Your task to perform on an android device: check google app version Image 0: 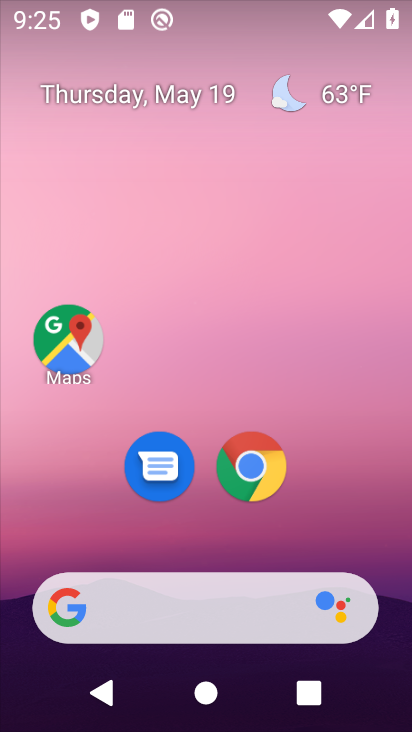
Step 0: drag from (394, 610) to (267, 9)
Your task to perform on an android device: check google app version Image 1: 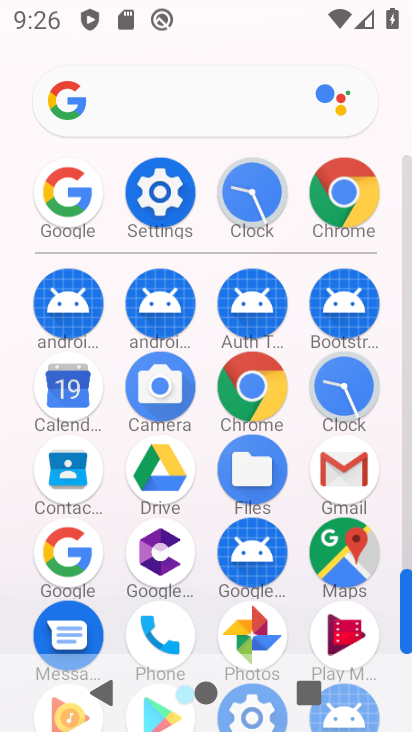
Step 1: click (61, 556)
Your task to perform on an android device: check google app version Image 2: 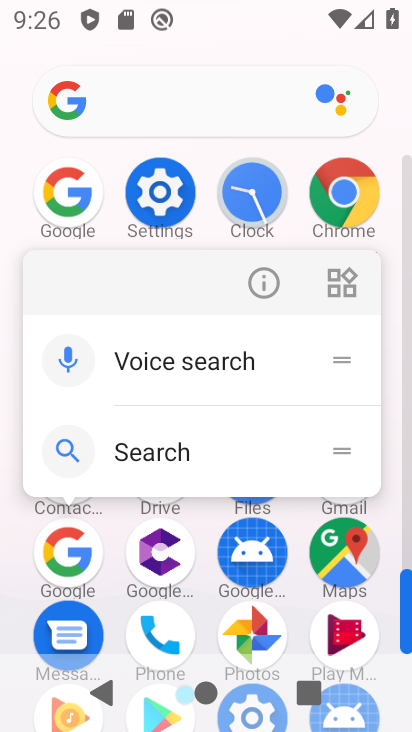
Step 2: click (251, 289)
Your task to perform on an android device: check google app version Image 3: 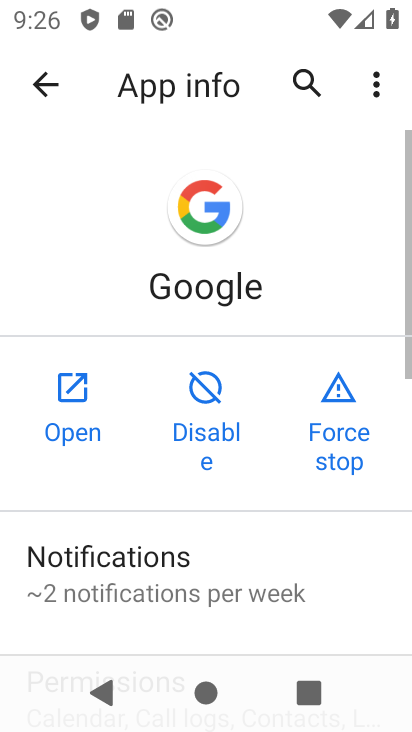
Step 3: drag from (192, 619) to (153, 62)
Your task to perform on an android device: check google app version Image 4: 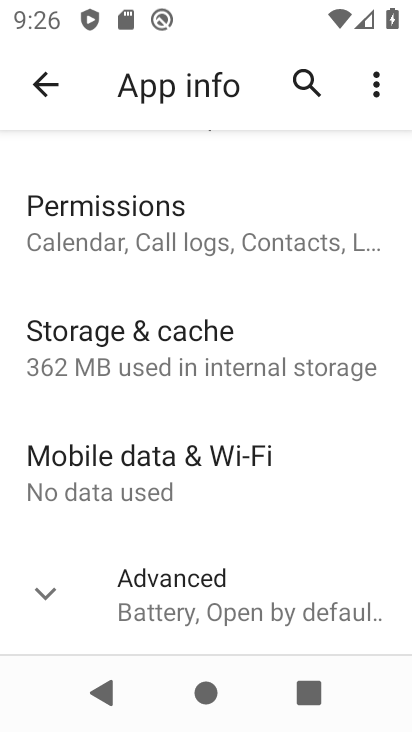
Step 4: click (225, 577)
Your task to perform on an android device: check google app version Image 5: 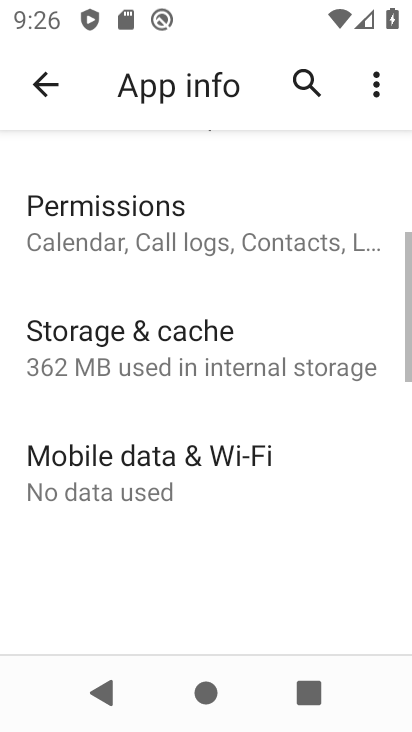
Step 5: task complete